Your task to perform on an android device: Show me productivity apps on the Play Store Image 0: 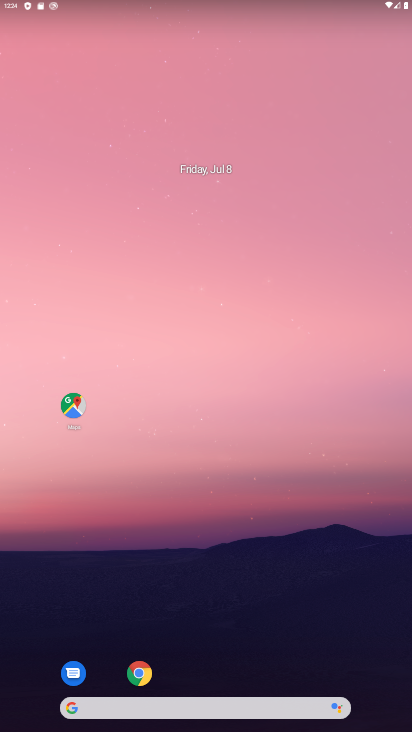
Step 0: drag from (230, 79) to (230, 45)
Your task to perform on an android device: Show me productivity apps on the Play Store Image 1: 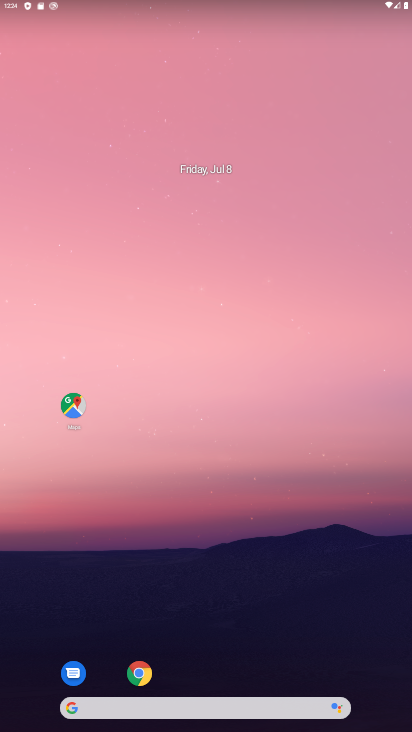
Step 1: drag from (219, 674) to (197, 80)
Your task to perform on an android device: Show me productivity apps on the Play Store Image 2: 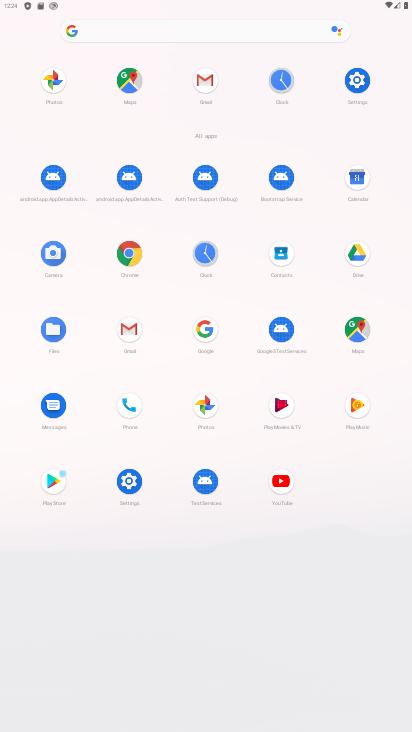
Step 2: click (52, 476)
Your task to perform on an android device: Show me productivity apps on the Play Store Image 3: 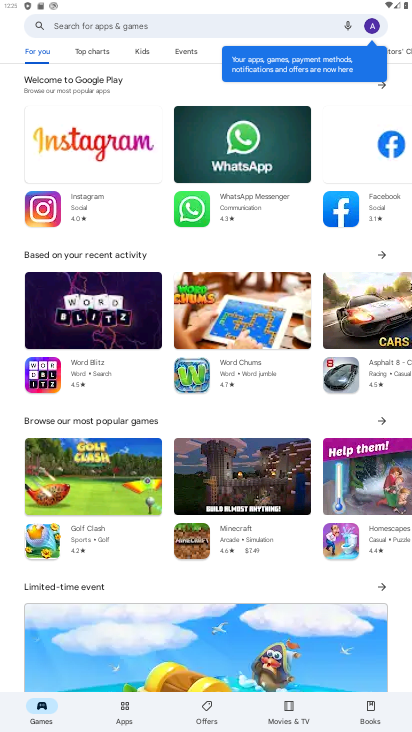
Step 3: click (122, 706)
Your task to perform on an android device: Show me productivity apps on the Play Store Image 4: 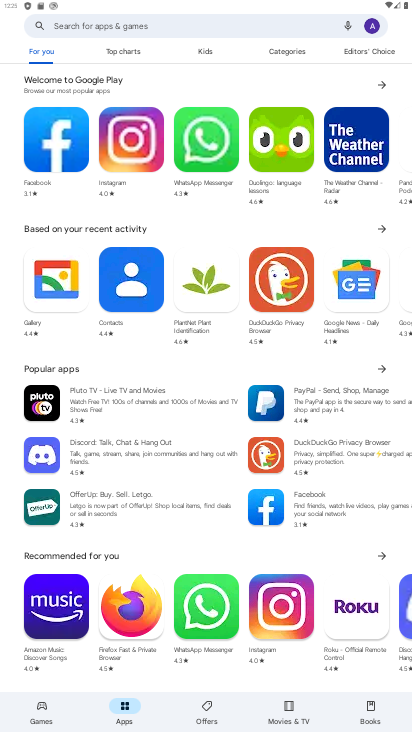
Step 4: click (277, 55)
Your task to perform on an android device: Show me productivity apps on the Play Store Image 5: 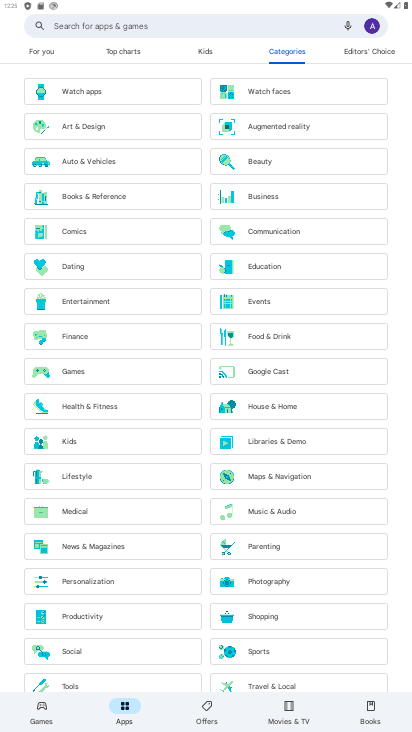
Step 5: click (87, 616)
Your task to perform on an android device: Show me productivity apps on the Play Store Image 6: 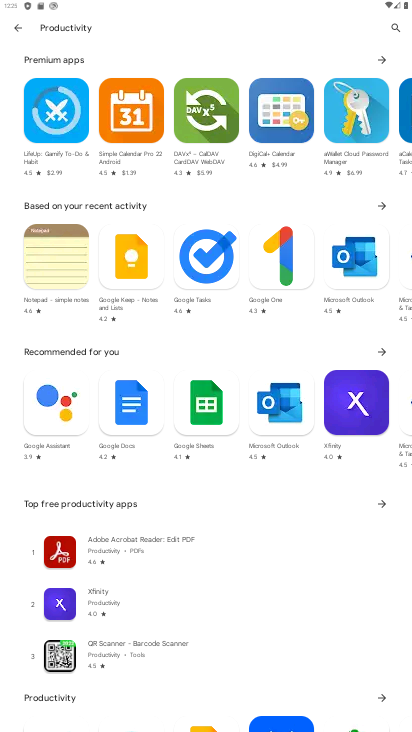
Step 6: task complete